Your task to perform on an android device: View the shopping cart on target.com. Search for logitech g502 on target.com, select the first entry, and add it to the cart. Image 0: 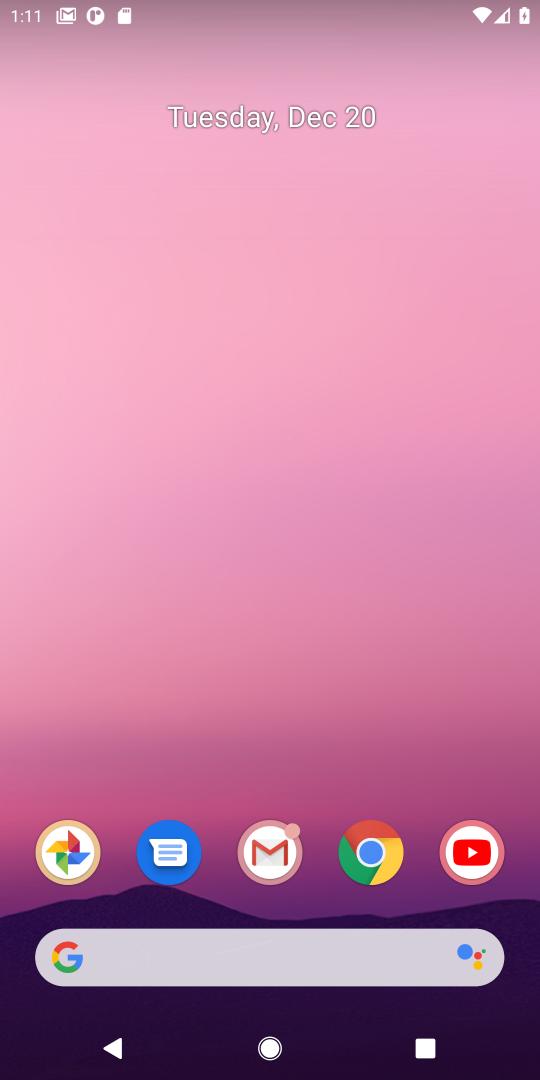
Step 0: click (382, 864)
Your task to perform on an android device: View the shopping cart on target.com. Search for logitech g502 on target.com, select the first entry, and add it to the cart. Image 1: 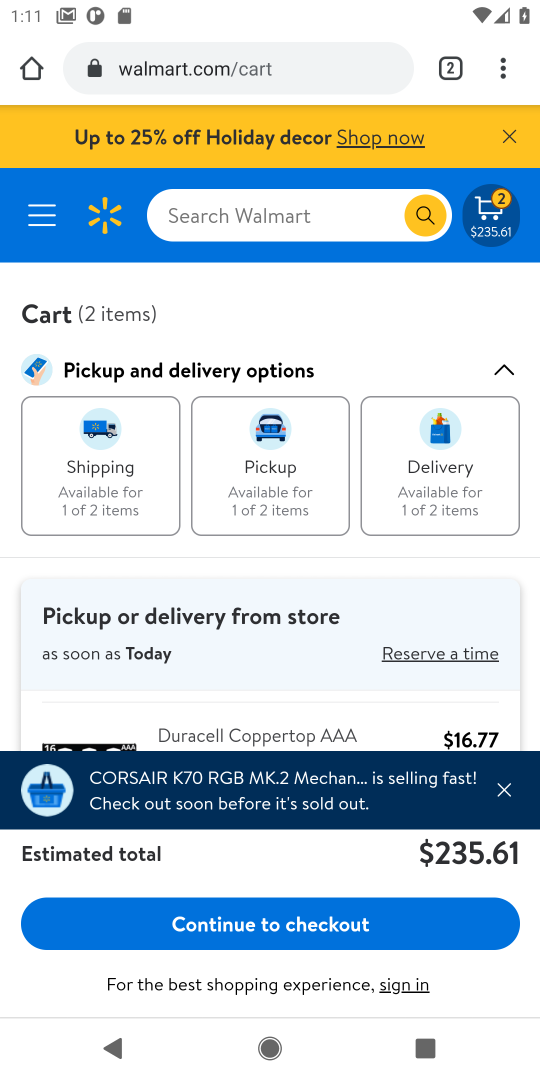
Step 1: click (178, 70)
Your task to perform on an android device: View the shopping cart on target.com. Search for logitech g502 on target.com, select the first entry, and add it to the cart. Image 2: 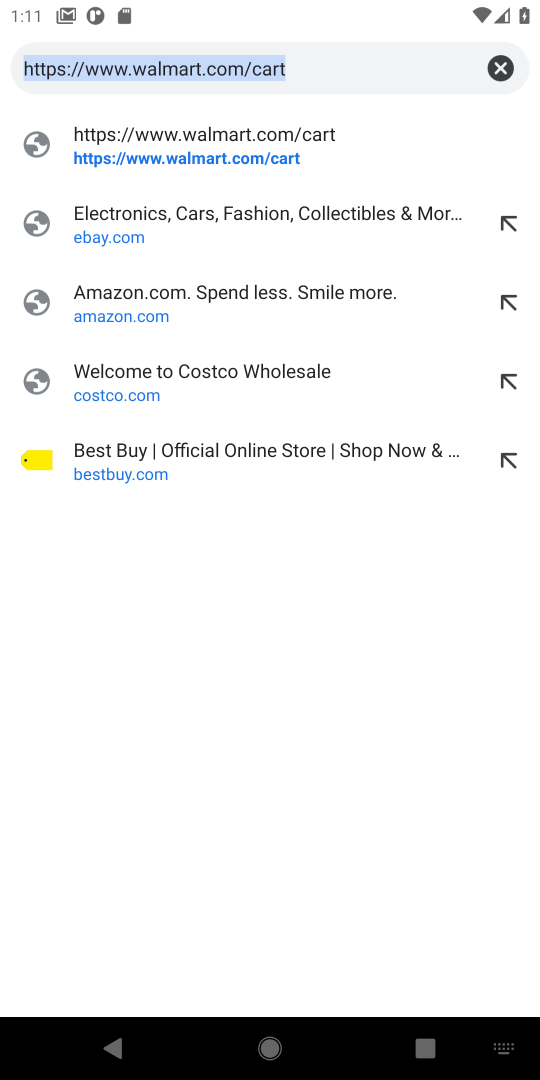
Step 2: type "target.com"
Your task to perform on an android device: View the shopping cart on target.com. Search for logitech g502 on target.com, select the first entry, and add it to the cart. Image 3: 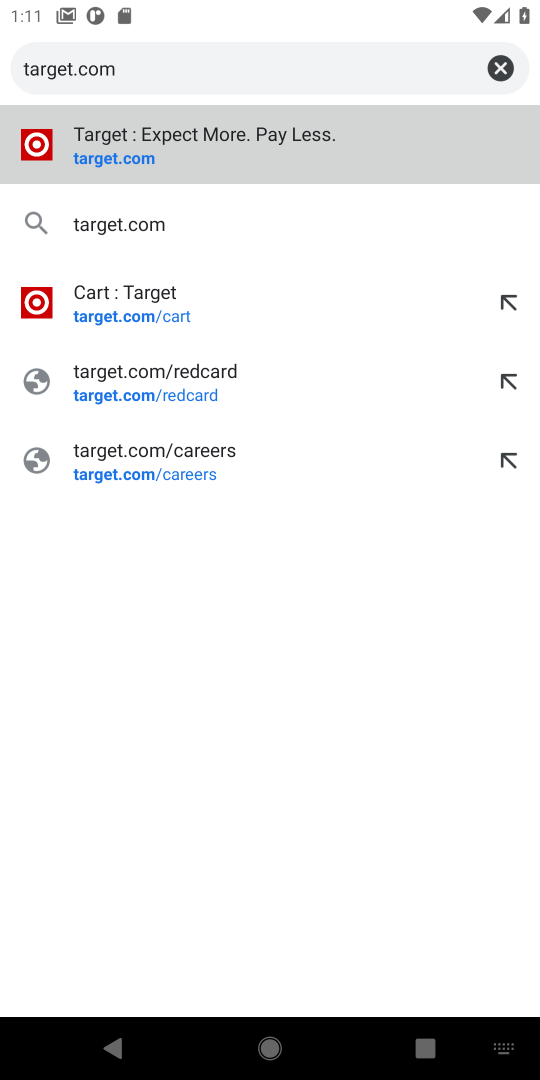
Step 3: click (99, 158)
Your task to perform on an android device: View the shopping cart on target.com. Search for logitech g502 on target.com, select the first entry, and add it to the cart. Image 4: 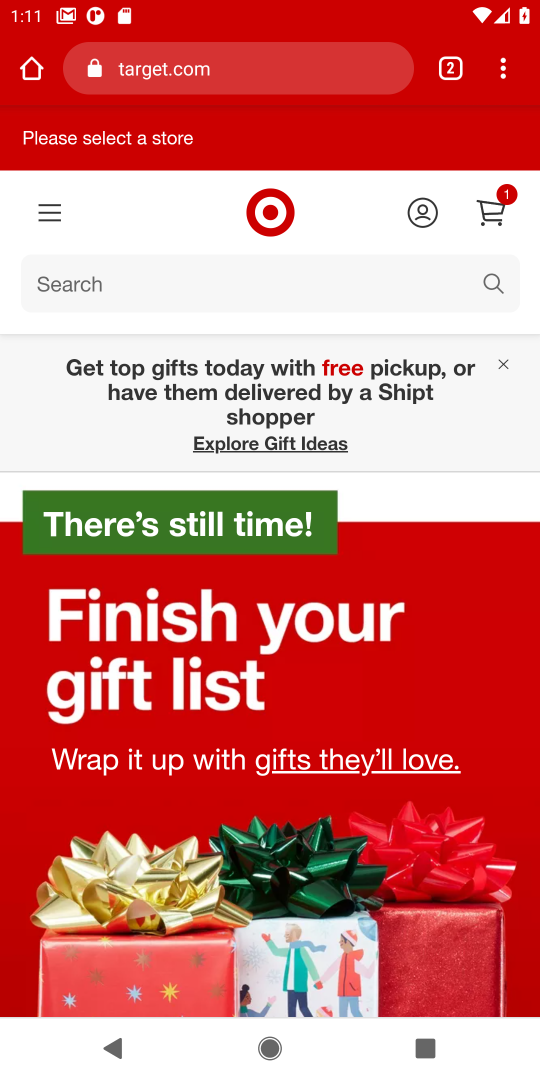
Step 4: click (489, 216)
Your task to perform on an android device: View the shopping cart on target.com. Search for logitech g502 on target.com, select the first entry, and add it to the cart. Image 5: 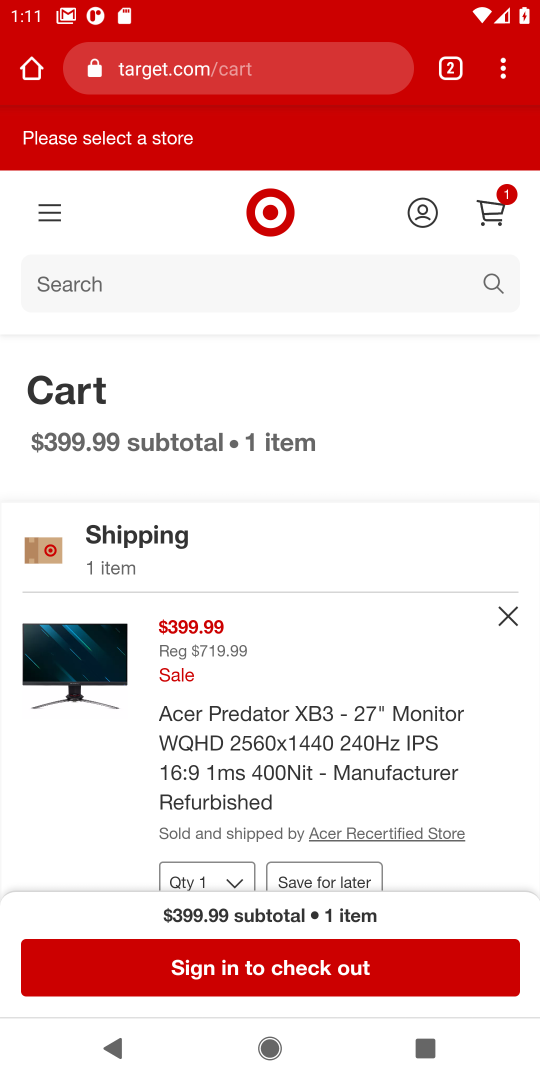
Step 5: click (72, 288)
Your task to perform on an android device: View the shopping cart on target.com. Search for logitech g502 on target.com, select the first entry, and add it to the cart. Image 6: 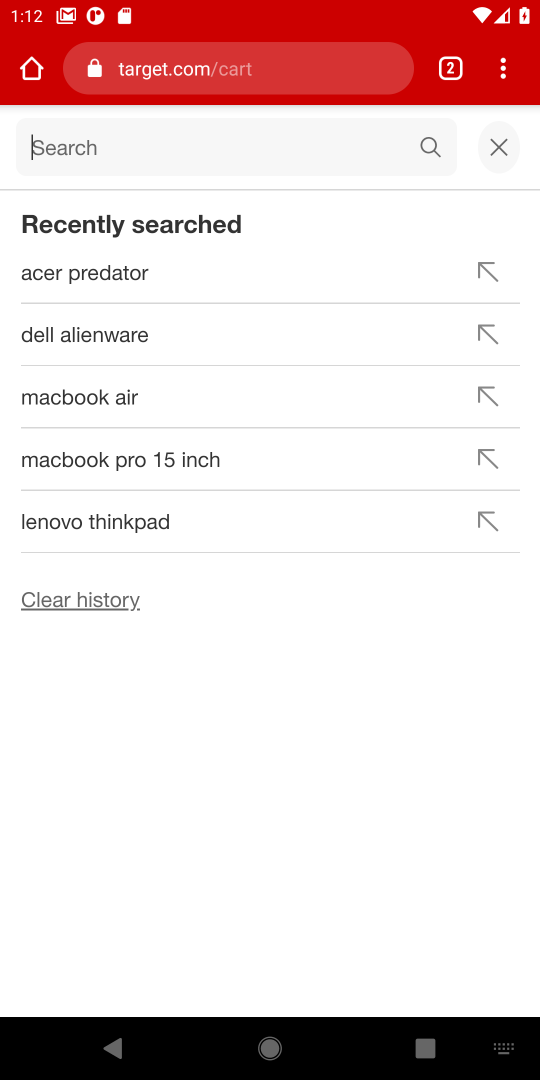
Step 6: type "logitech g502"
Your task to perform on an android device: View the shopping cart on target.com. Search for logitech g502 on target.com, select the first entry, and add it to the cart. Image 7: 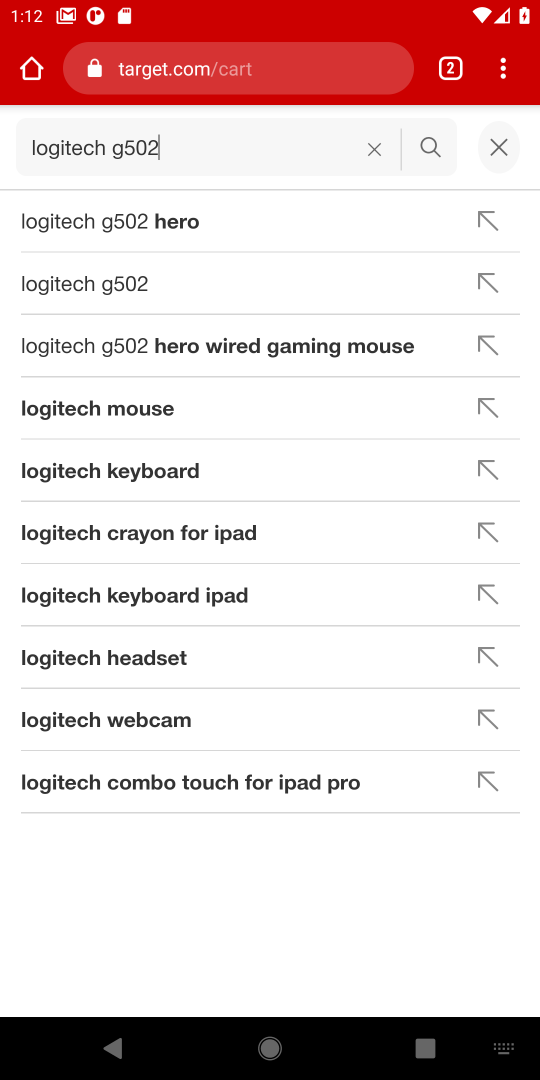
Step 7: click (99, 294)
Your task to perform on an android device: View the shopping cart on target.com. Search for logitech g502 on target.com, select the first entry, and add it to the cart. Image 8: 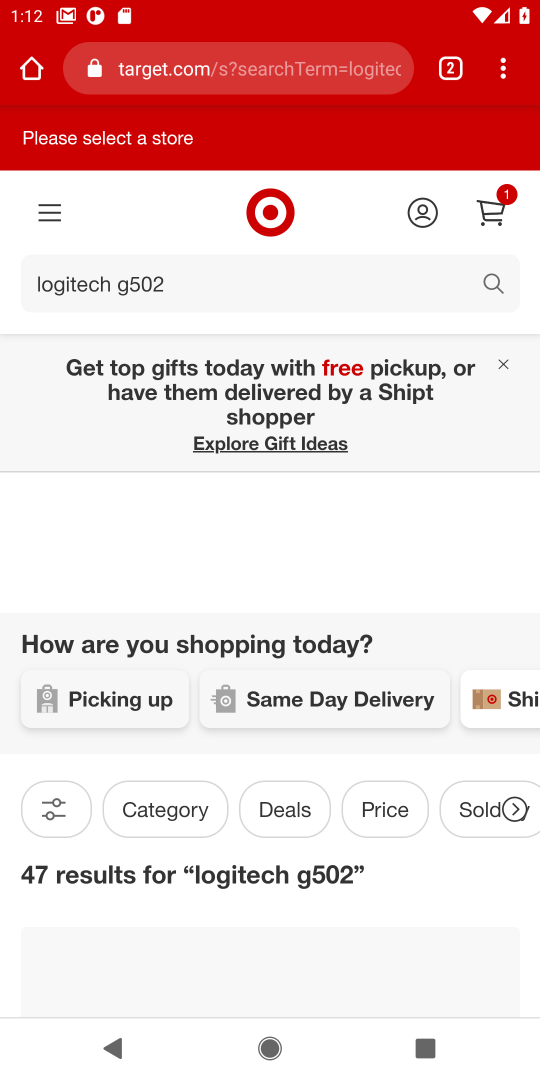
Step 8: drag from (279, 819) to (251, 467)
Your task to perform on an android device: View the shopping cart on target.com. Search for logitech g502 on target.com, select the first entry, and add it to the cart. Image 9: 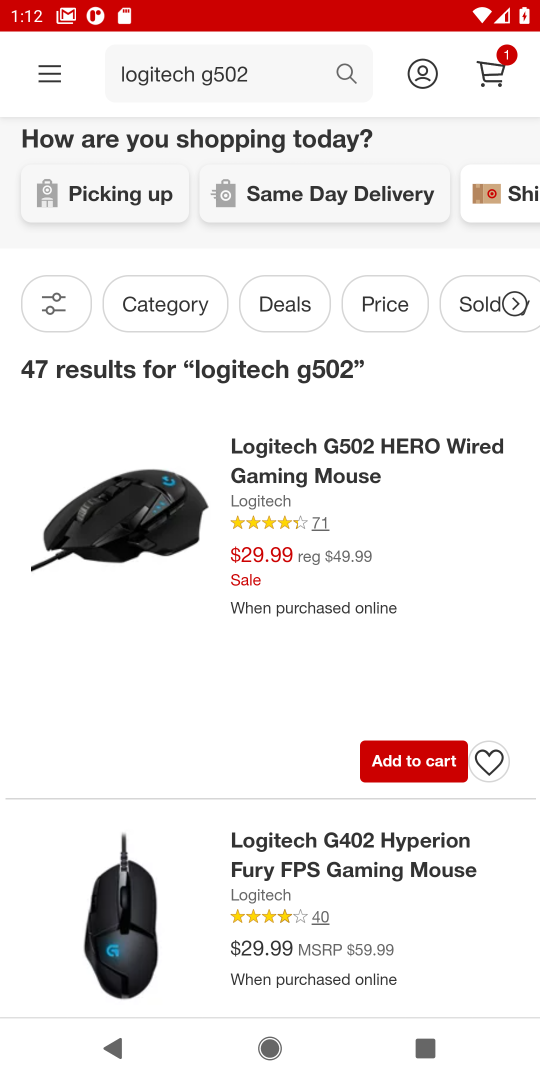
Step 9: click (382, 767)
Your task to perform on an android device: View the shopping cart on target.com. Search for logitech g502 on target.com, select the first entry, and add it to the cart. Image 10: 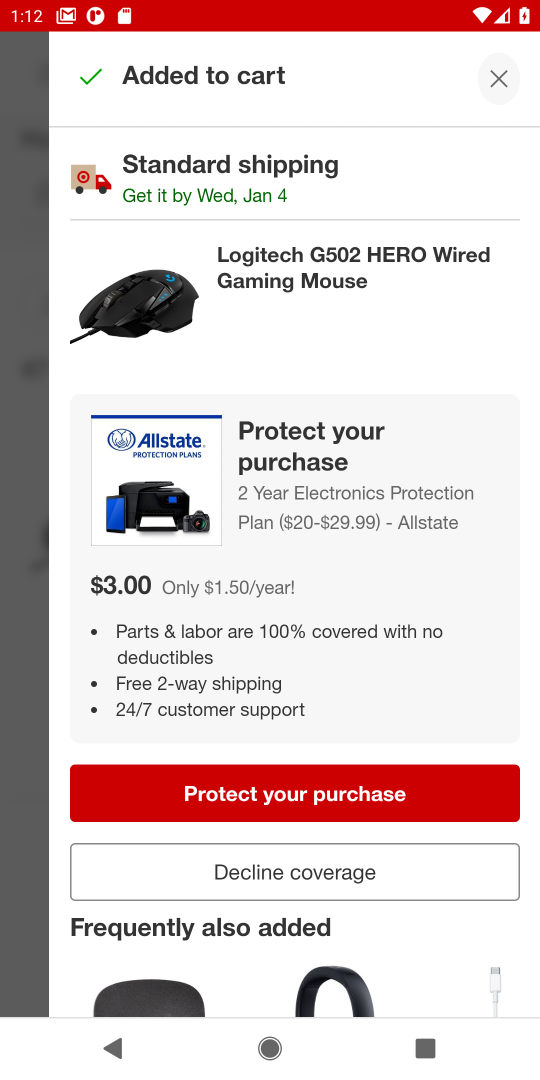
Step 10: task complete